Your task to perform on an android device: open app "Etsy: Buy & Sell Unique Items" Image 0: 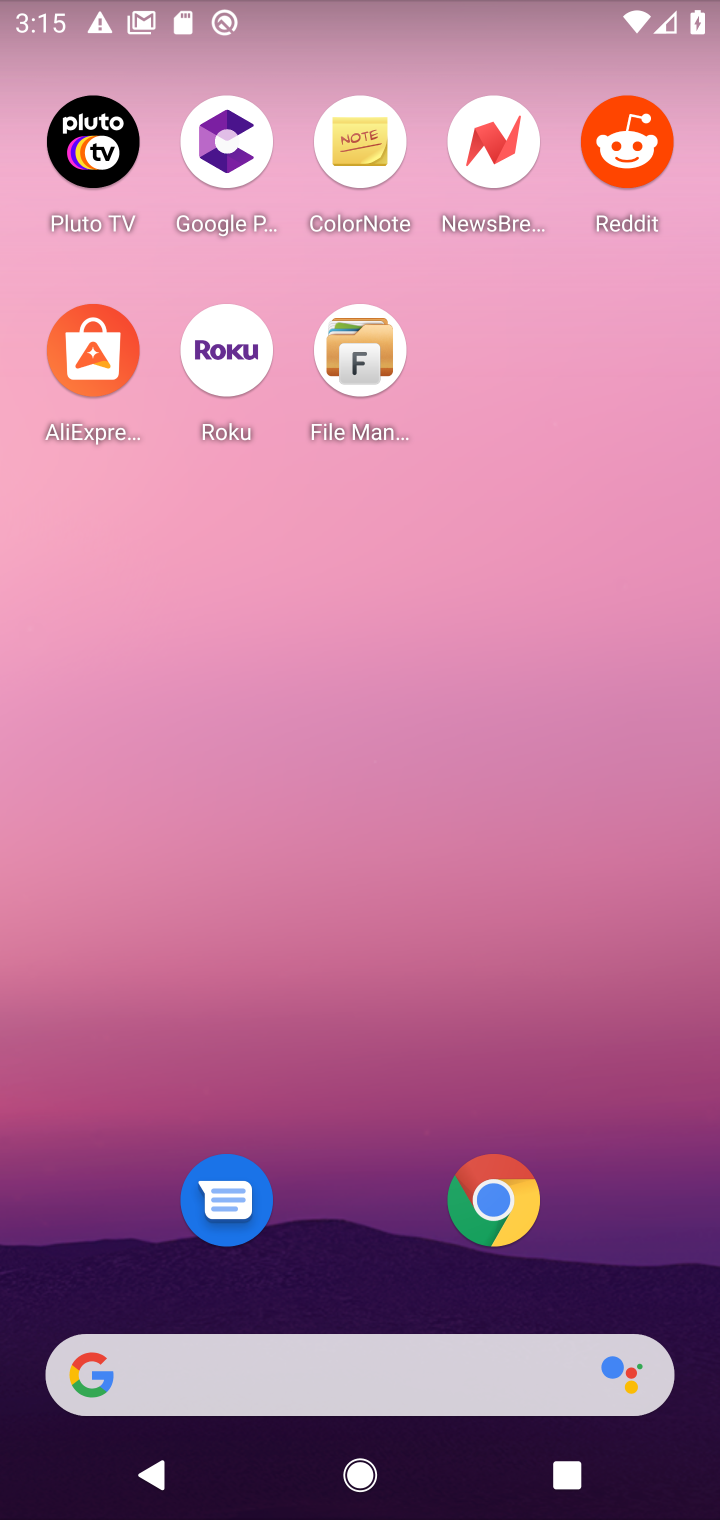
Step 0: click (354, 56)
Your task to perform on an android device: open app "Etsy: Buy & Sell Unique Items" Image 1: 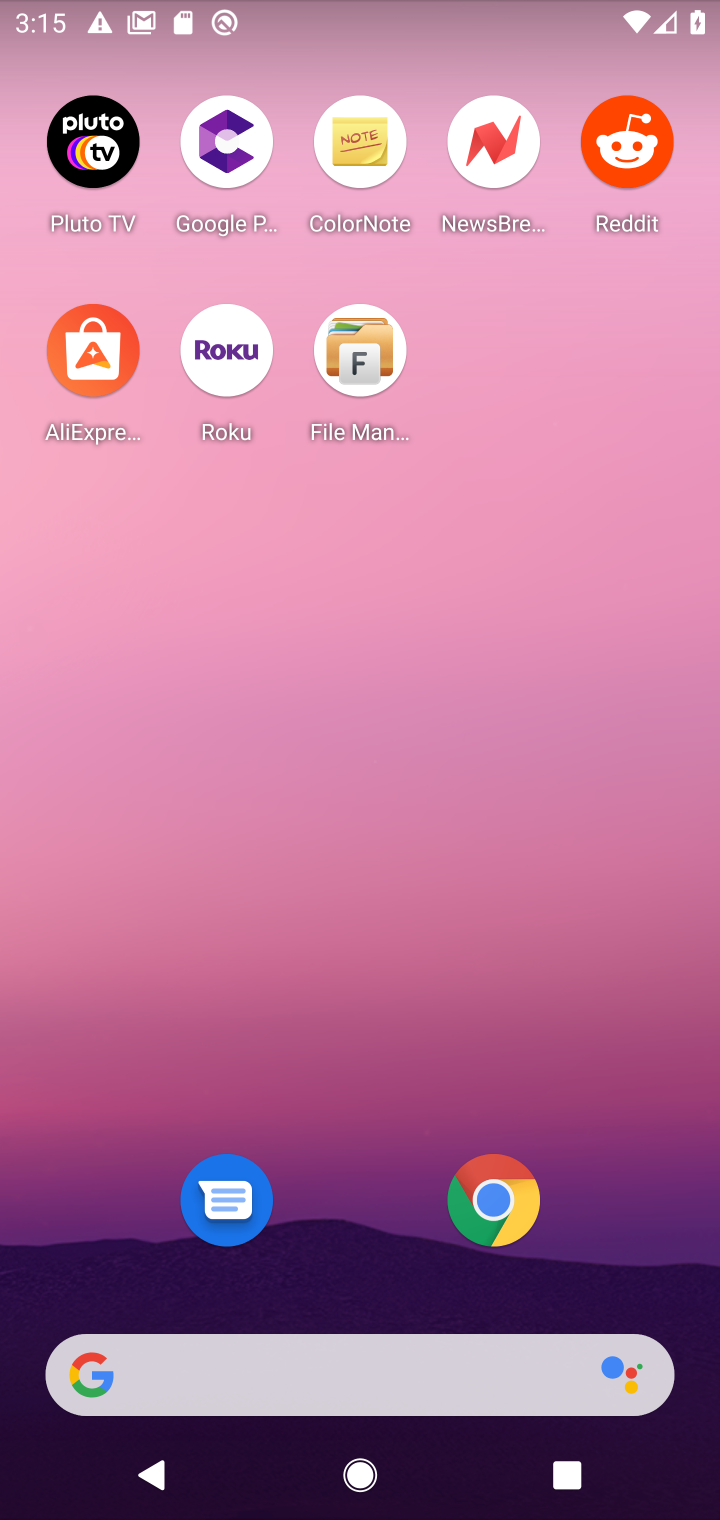
Step 1: drag from (314, 1136) to (176, 51)
Your task to perform on an android device: open app "Etsy: Buy & Sell Unique Items" Image 2: 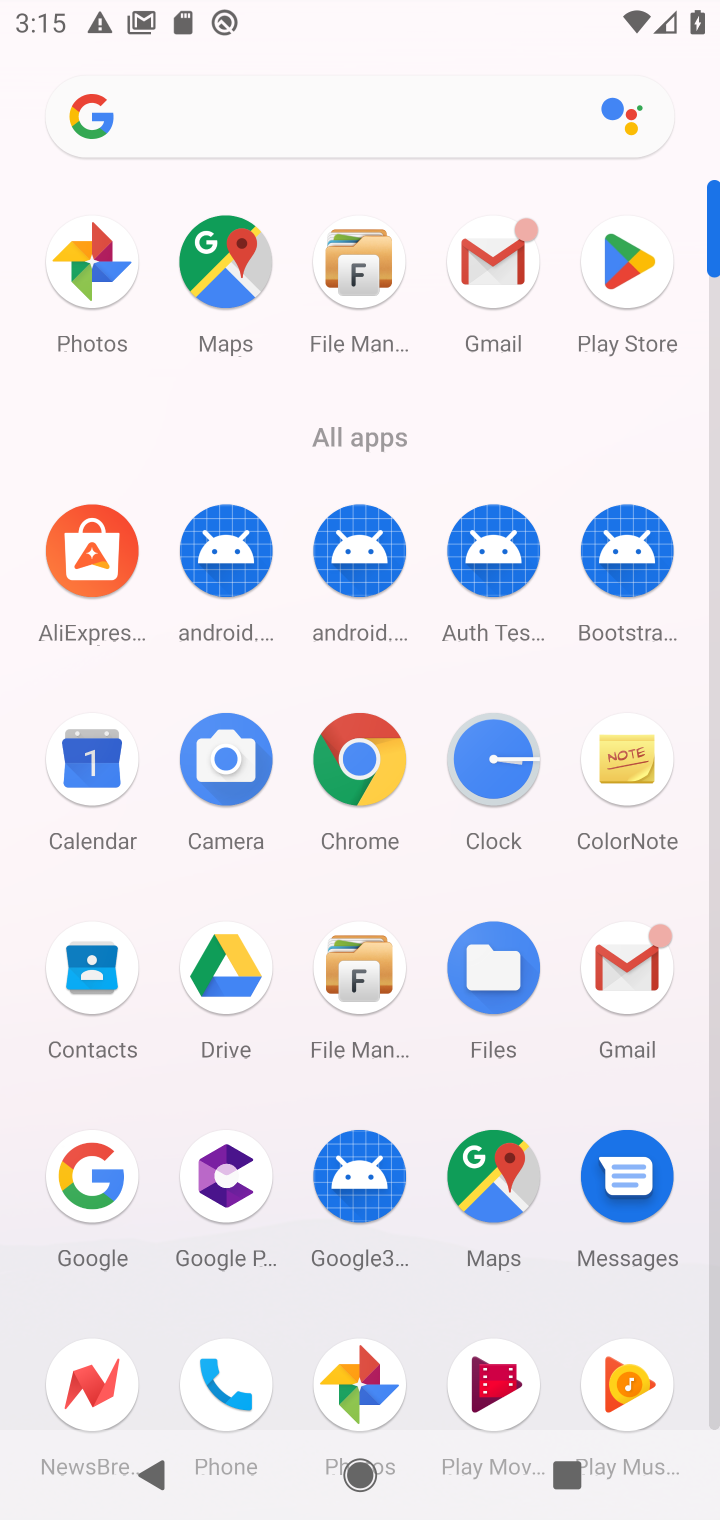
Step 2: click (604, 290)
Your task to perform on an android device: open app "Etsy: Buy & Sell Unique Items" Image 3: 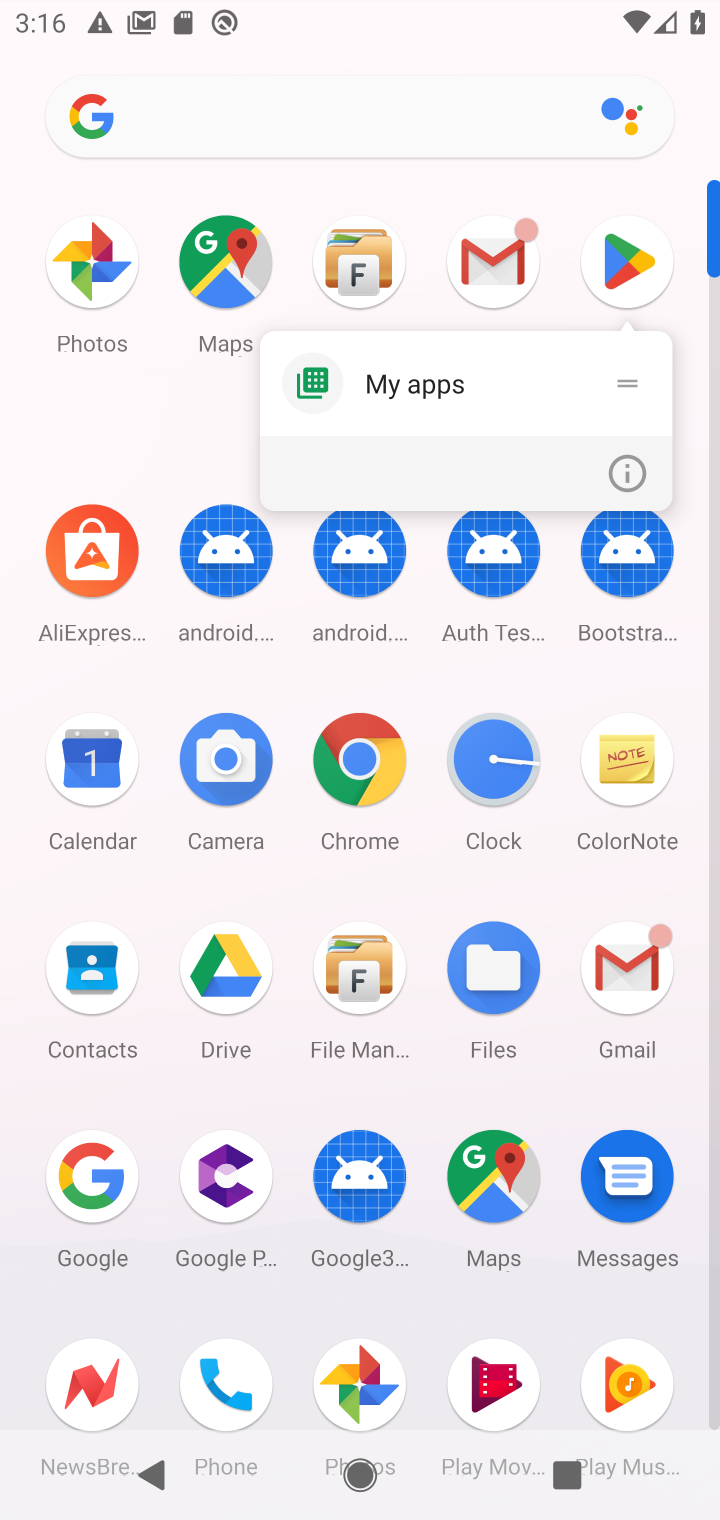
Step 3: click (649, 269)
Your task to perform on an android device: open app "Etsy: Buy & Sell Unique Items" Image 4: 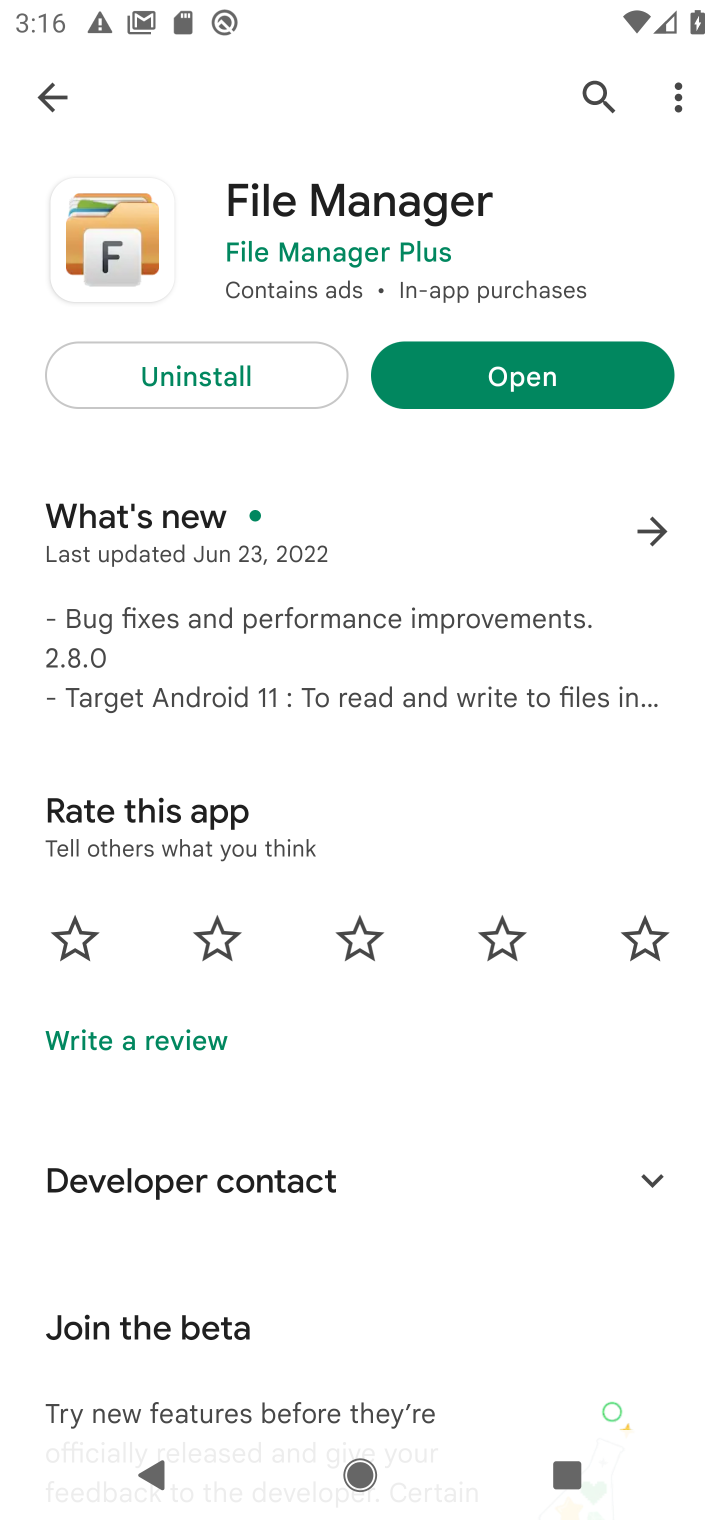
Step 4: click (53, 95)
Your task to perform on an android device: open app "Etsy: Buy & Sell Unique Items" Image 5: 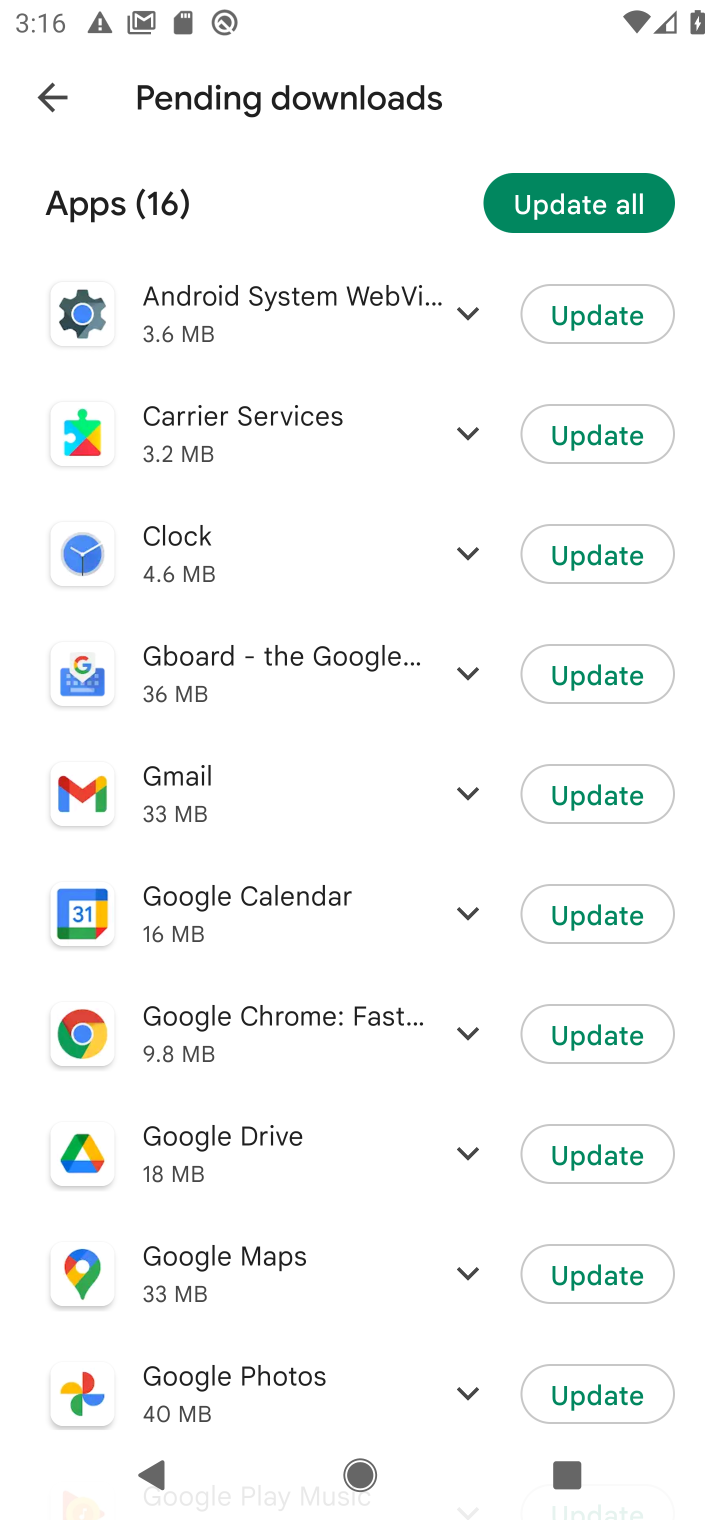
Step 5: click (45, 97)
Your task to perform on an android device: open app "Etsy: Buy & Sell Unique Items" Image 6: 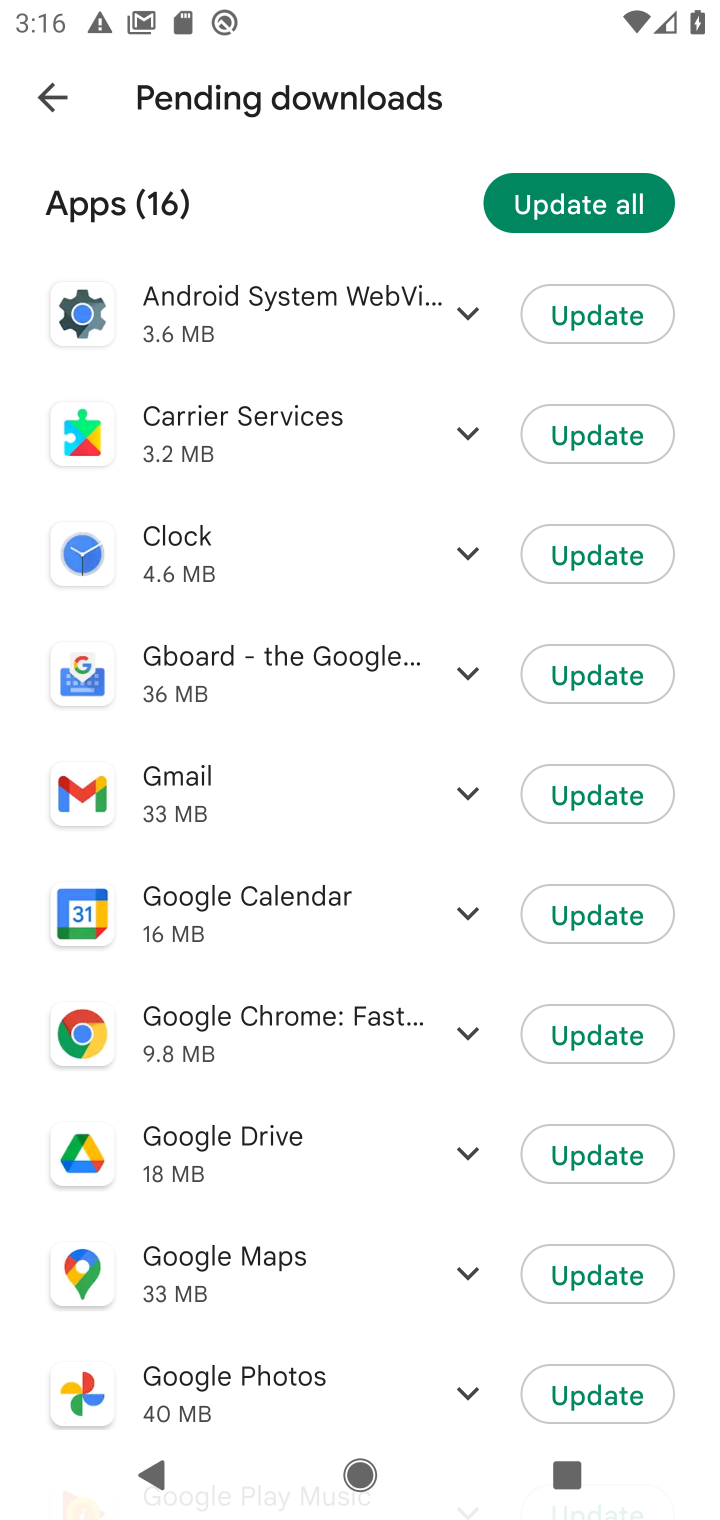
Step 6: click (68, 95)
Your task to perform on an android device: open app "Etsy: Buy & Sell Unique Items" Image 7: 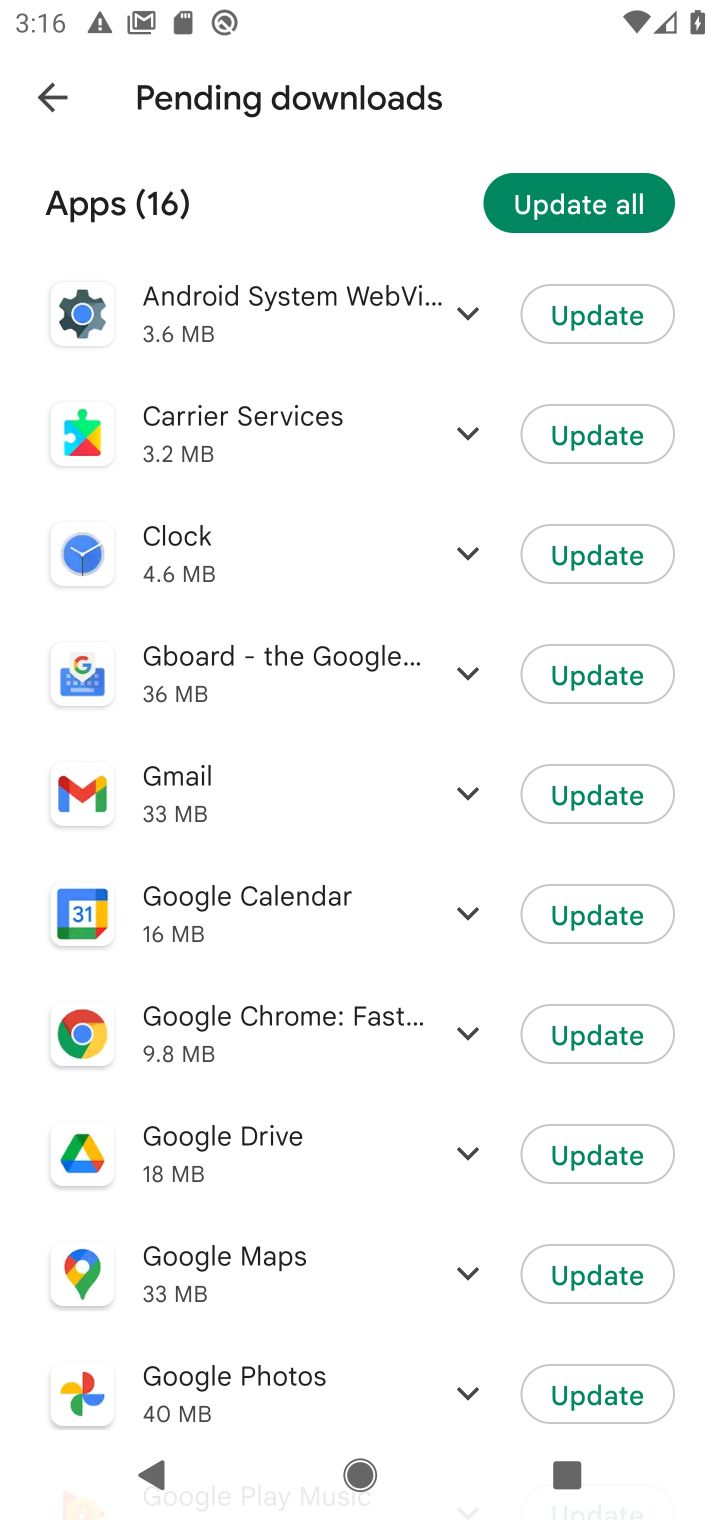
Step 7: click (58, 107)
Your task to perform on an android device: open app "Etsy: Buy & Sell Unique Items" Image 8: 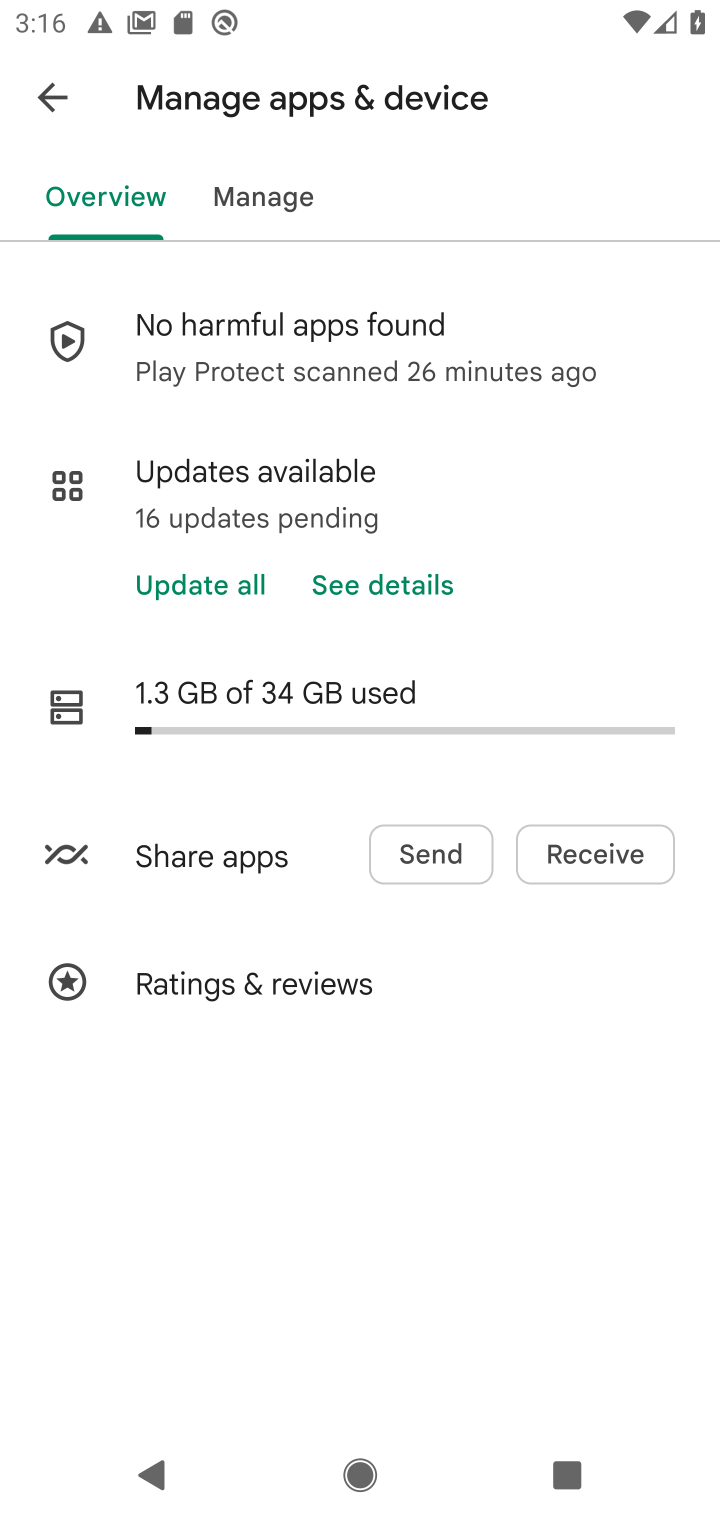
Step 8: click (55, 93)
Your task to perform on an android device: open app "Etsy: Buy & Sell Unique Items" Image 9: 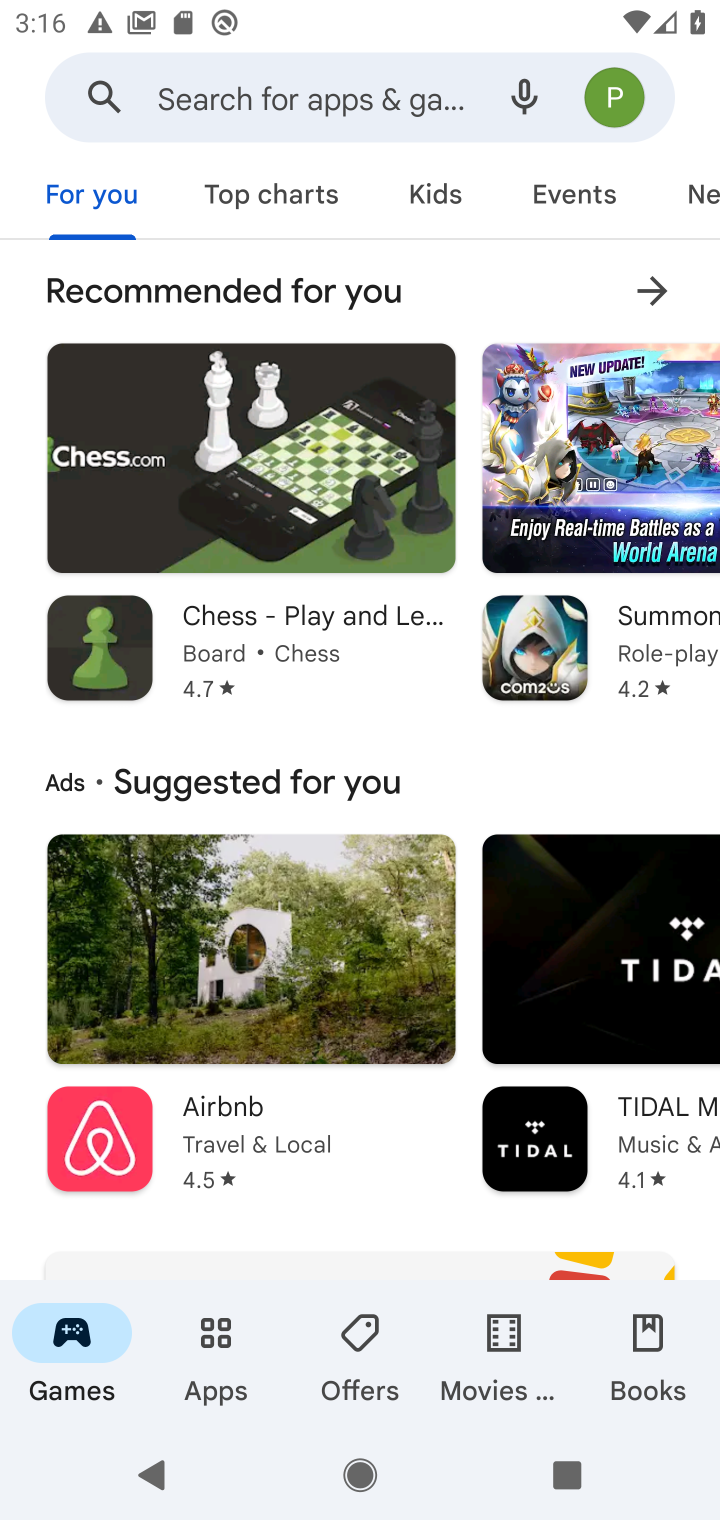
Step 9: click (278, 96)
Your task to perform on an android device: open app "Etsy: Buy & Sell Unique Items" Image 10: 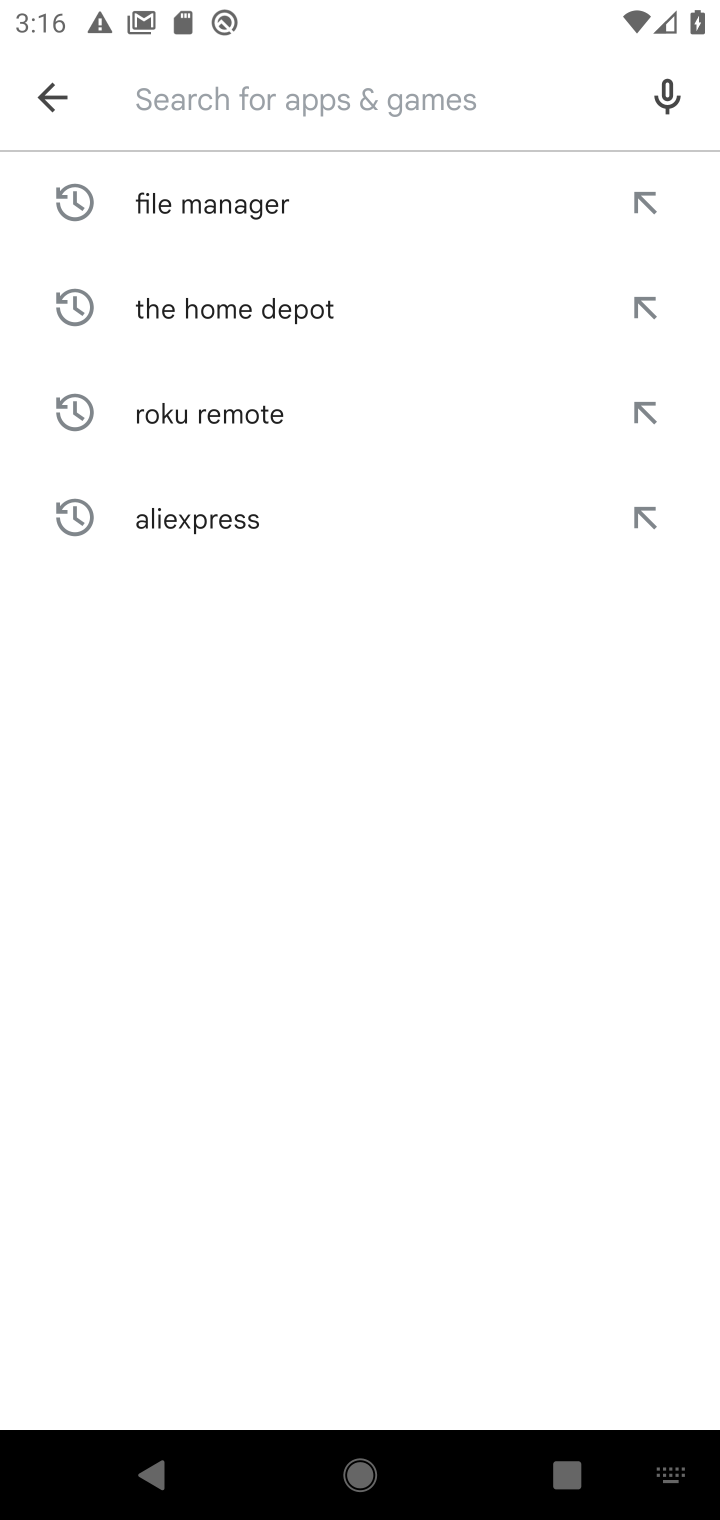
Step 10: type "etsy"
Your task to perform on an android device: open app "Etsy: Buy & Sell Unique Items" Image 11: 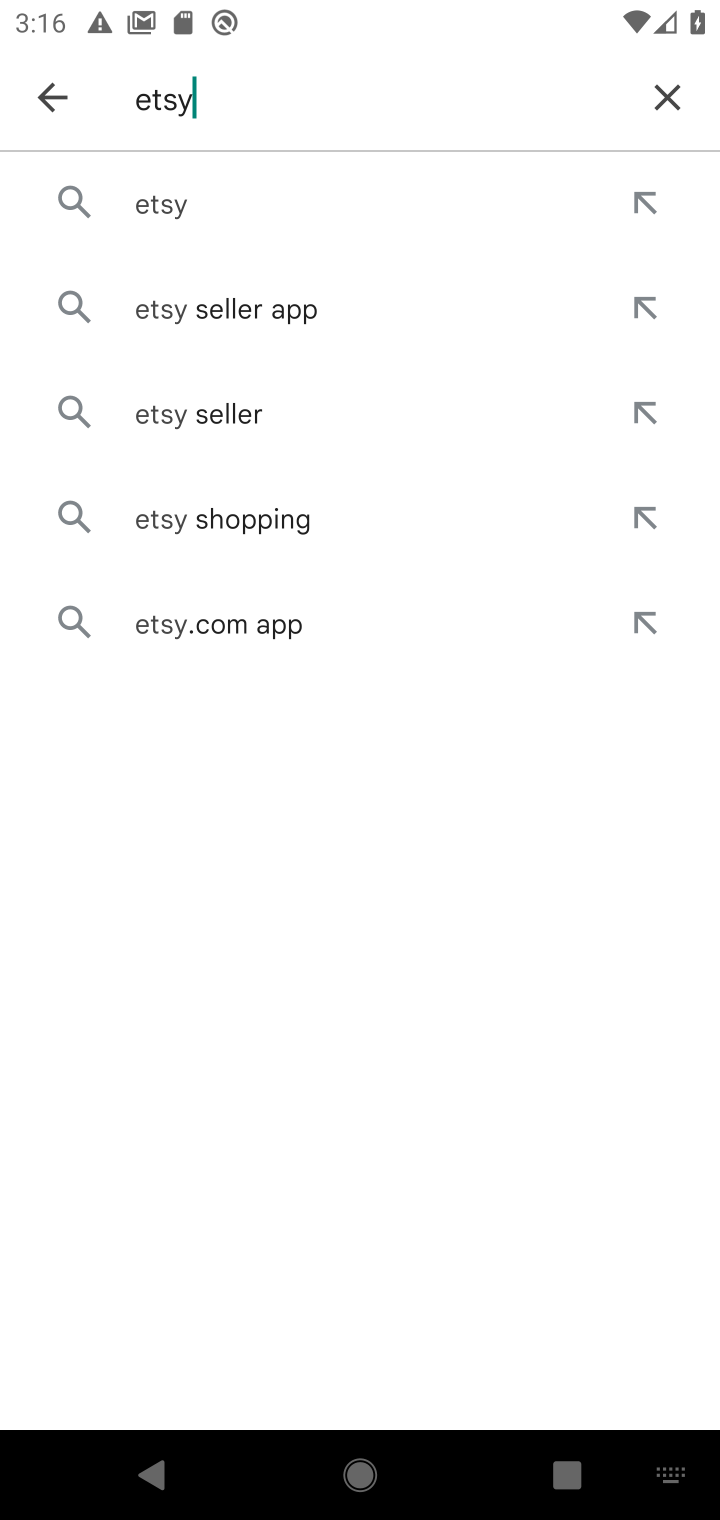
Step 11: click (179, 214)
Your task to perform on an android device: open app "Etsy: Buy & Sell Unique Items" Image 12: 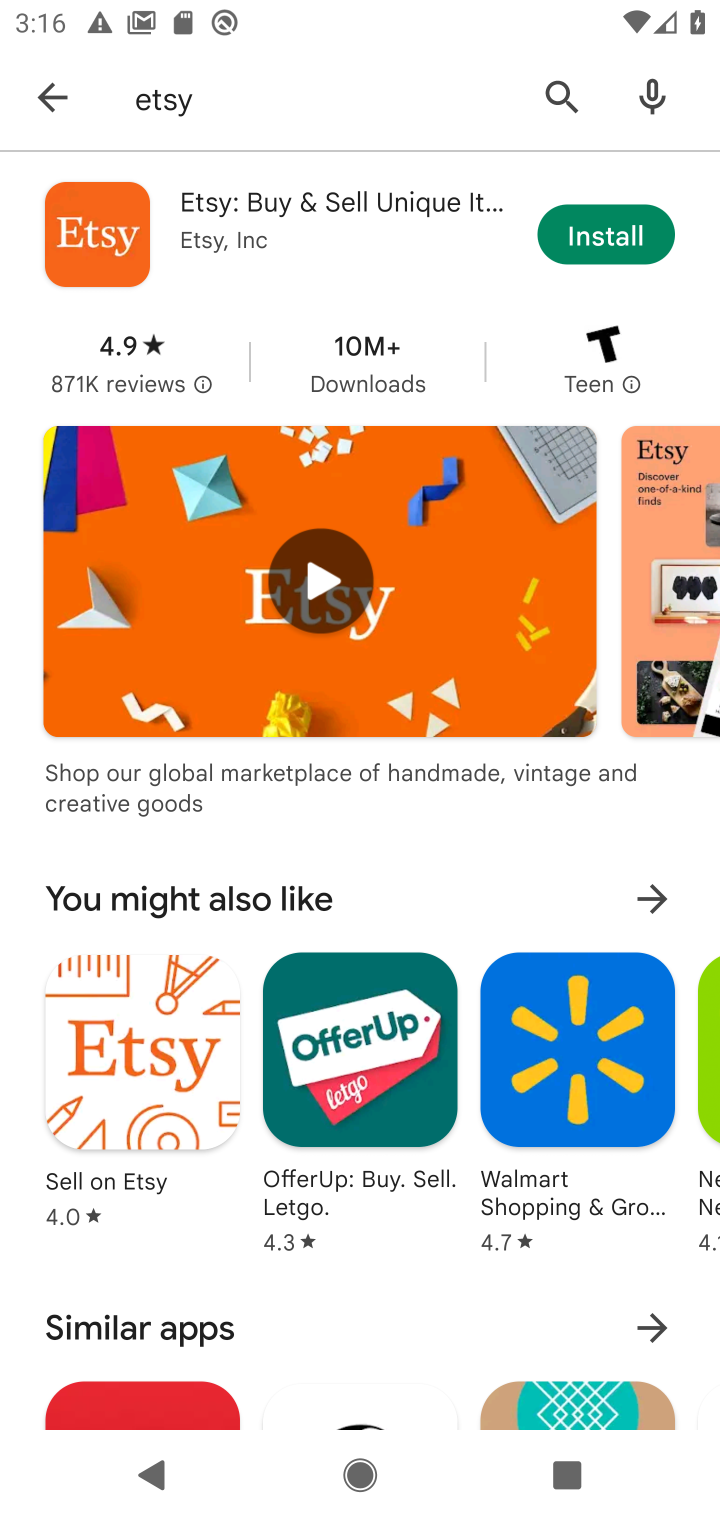
Step 12: task complete